Your task to perform on an android device: turn on wifi Image 0: 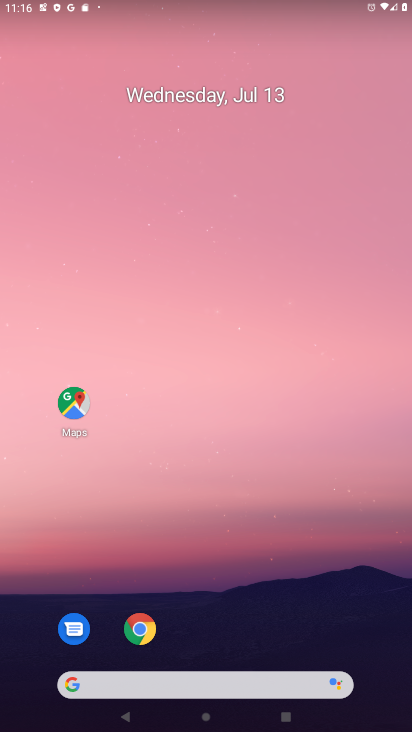
Step 0: drag from (280, 649) to (238, 88)
Your task to perform on an android device: turn on wifi Image 1: 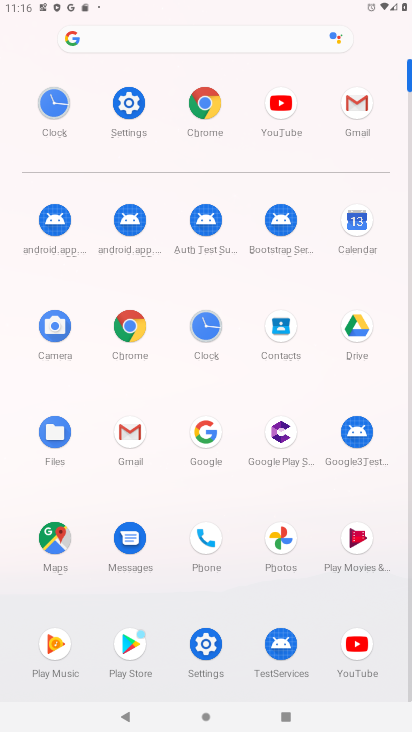
Step 1: click (194, 650)
Your task to perform on an android device: turn on wifi Image 2: 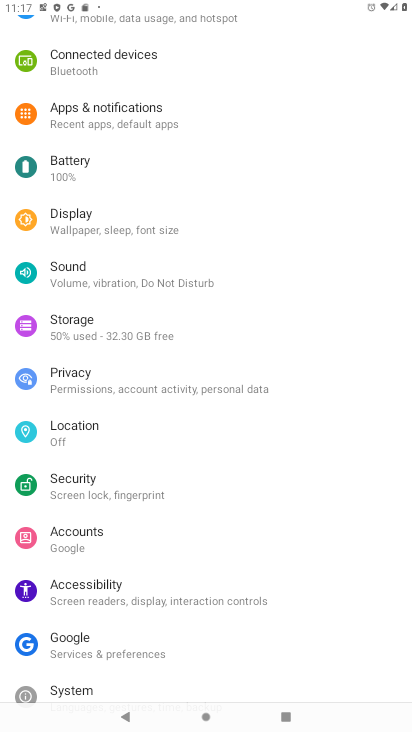
Step 2: drag from (188, 243) to (247, 517)
Your task to perform on an android device: turn on wifi Image 3: 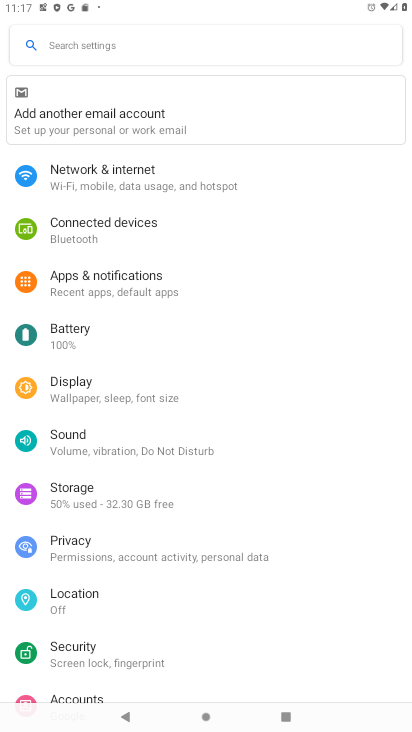
Step 3: click (249, 183)
Your task to perform on an android device: turn on wifi Image 4: 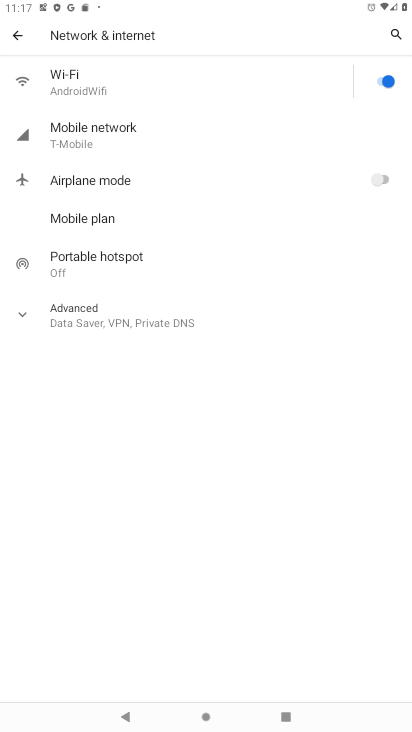
Step 4: task complete